Your task to perform on an android device: Is it going to rain tomorrow? Image 0: 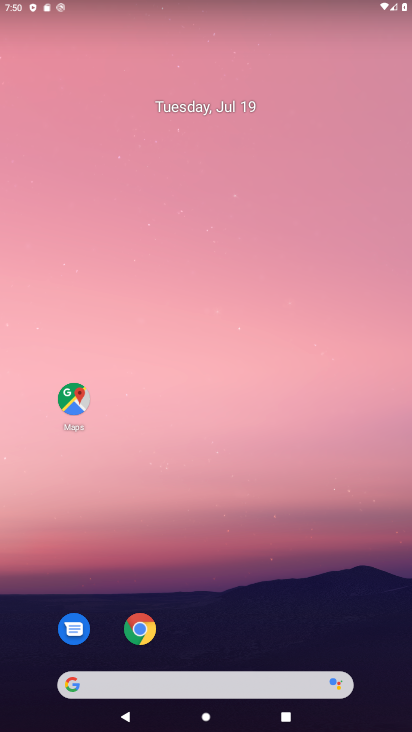
Step 0: drag from (219, 551) to (320, 218)
Your task to perform on an android device: Is it going to rain tomorrow? Image 1: 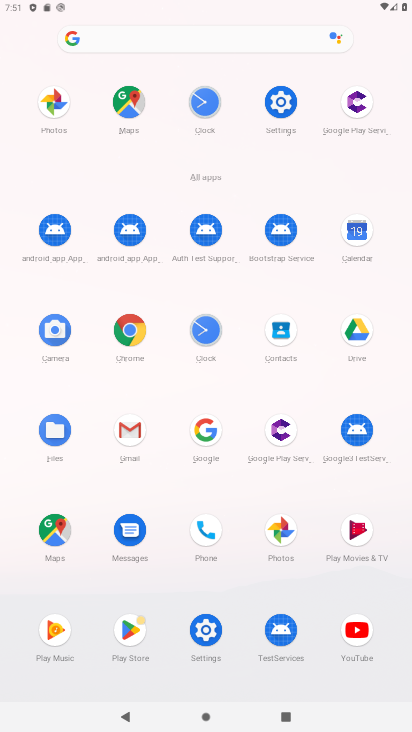
Step 1: click (231, 36)
Your task to perform on an android device: Is it going to rain tomorrow? Image 2: 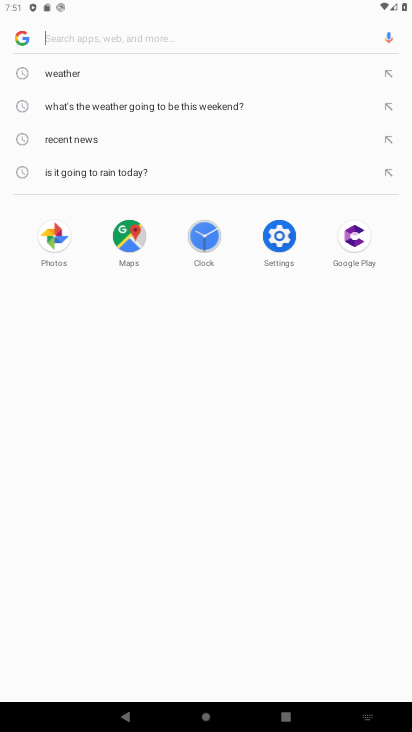
Step 2: type "Is it going to rain tomorrow?"
Your task to perform on an android device: Is it going to rain tomorrow? Image 3: 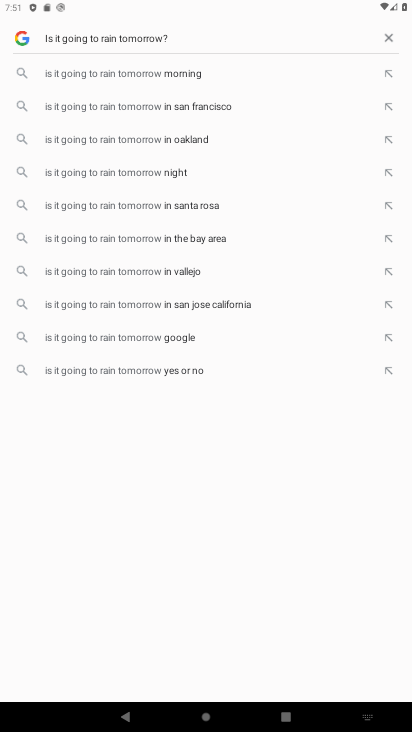
Step 3: click (135, 341)
Your task to perform on an android device: Is it going to rain tomorrow? Image 4: 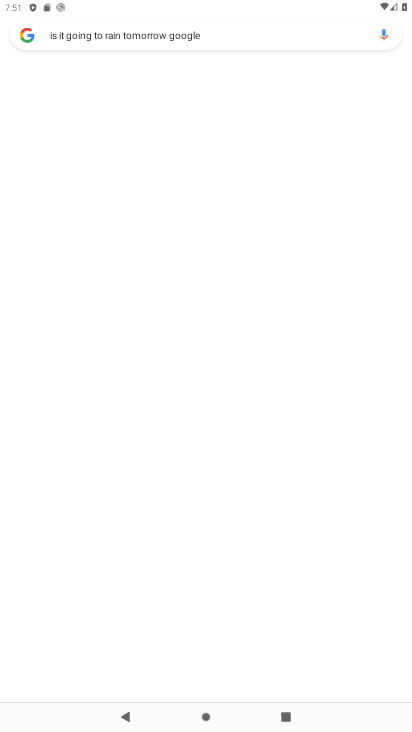
Step 4: task complete